Your task to perform on an android device: turn on sleep mode Image 0: 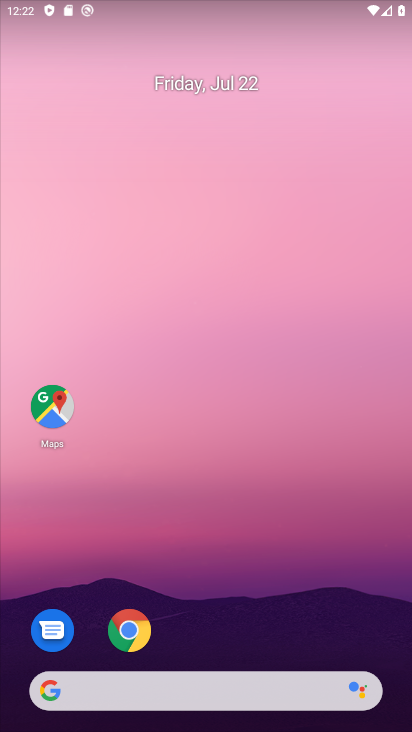
Step 0: drag from (319, 649) to (270, 195)
Your task to perform on an android device: turn on sleep mode Image 1: 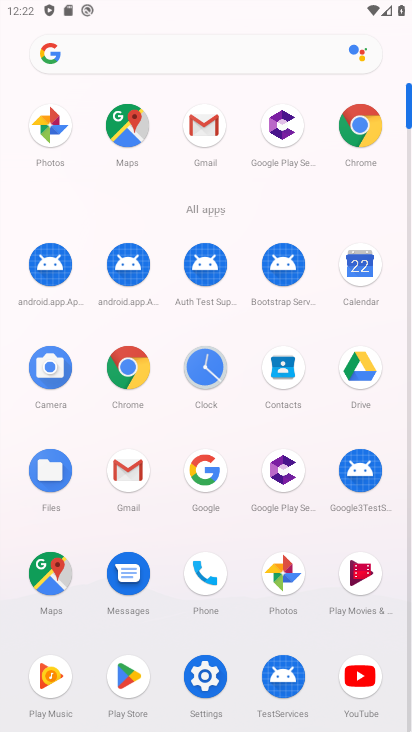
Step 1: click (195, 681)
Your task to perform on an android device: turn on sleep mode Image 2: 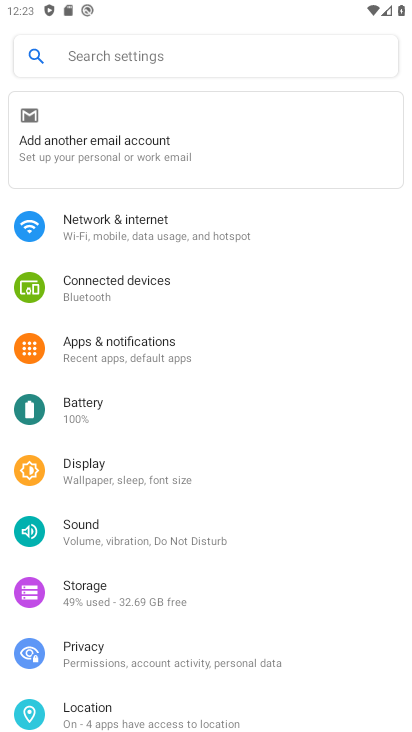
Step 2: click (141, 454)
Your task to perform on an android device: turn on sleep mode Image 3: 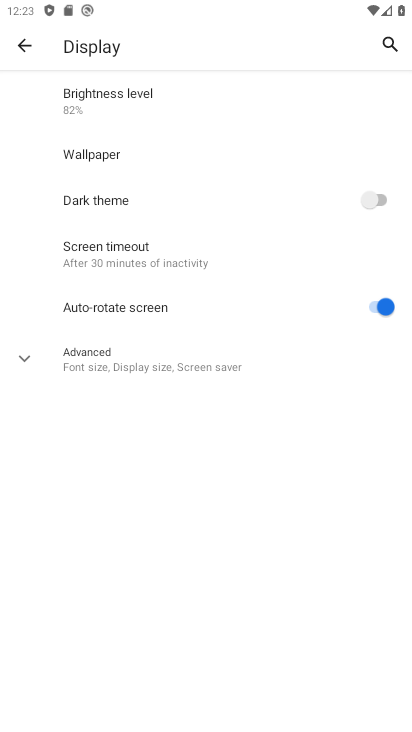
Step 3: click (145, 370)
Your task to perform on an android device: turn on sleep mode Image 4: 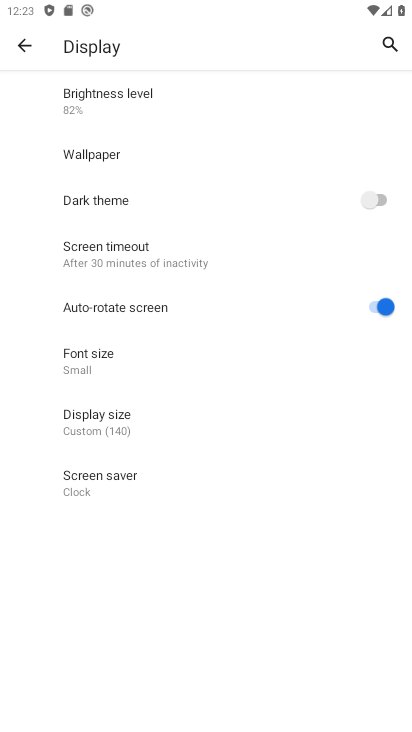
Step 4: task complete